Your task to perform on an android device: Open calendar and show me the fourth week of next month Image 0: 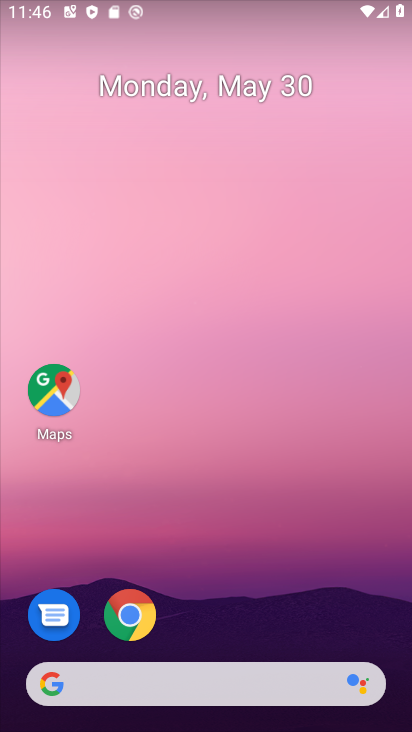
Step 0: drag from (370, 600) to (368, 204)
Your task to perform on an android device: Open calendar and show me the fourth week of next month Image 1: 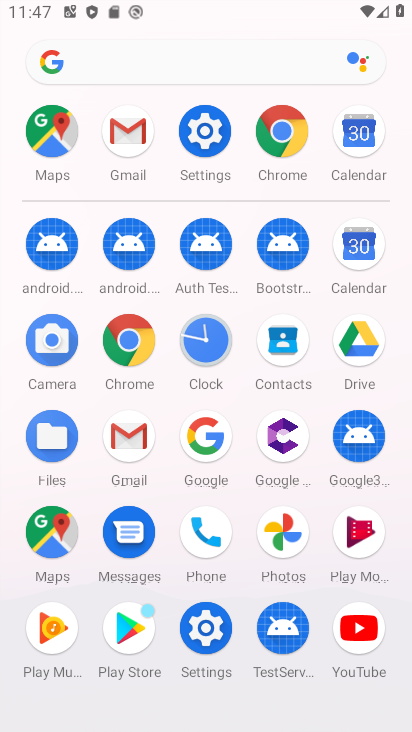
Step 1: click (356, 262)
Your task to perform on an android device: Open calendar and show me the fourth week of next month Image 2: 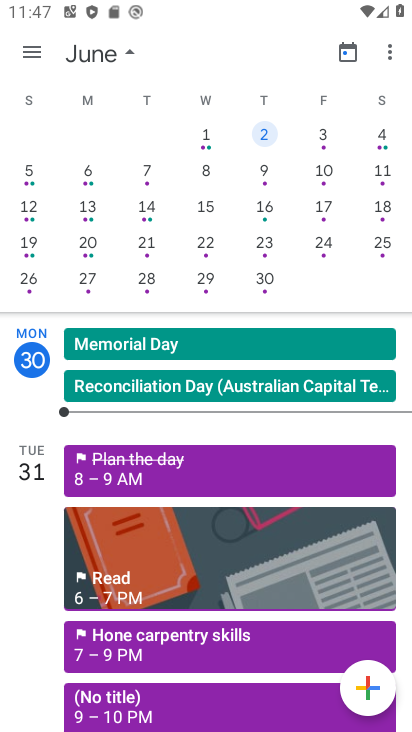
Step 2: click (85, 244)
Your task to perform on an android device: Open calendar and show me the fourth week of next month Image 3: 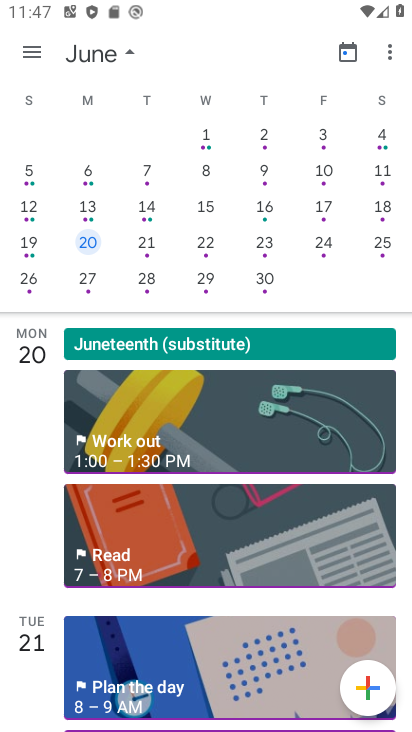
Step 3: task complete